Your task to perform on an android device: Open Youtube and go to "Your channel" Image 0: 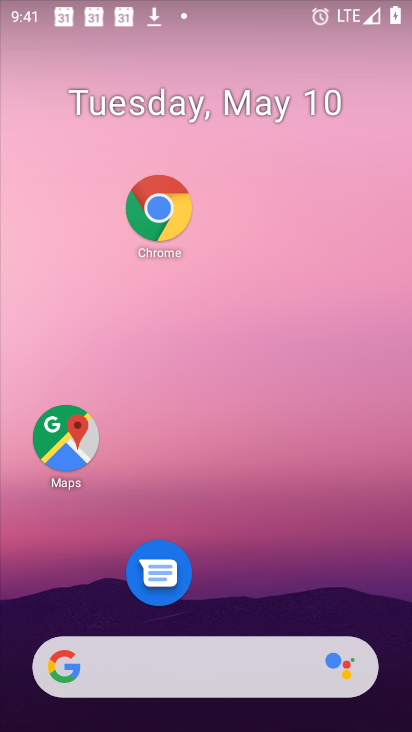
Step 0: drag from (324, 674) to (393, 251)
Your task to perform on an android device: Open Youtube and go to "Your channel" Image 1: 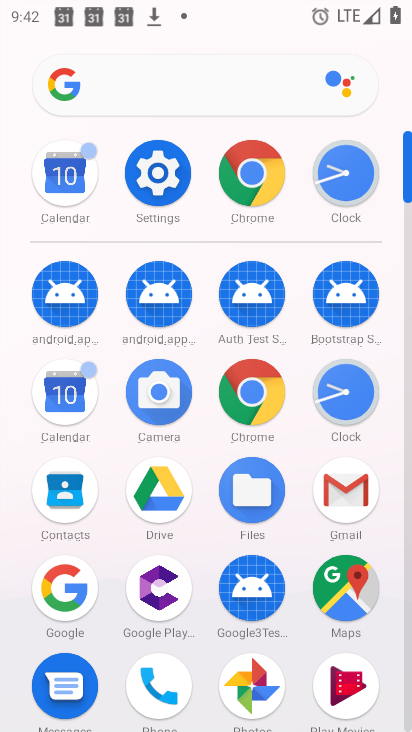
Step 1: drag from (293, 632) to (346, 459)
Your task to perform on an android device: Open Youtube and go to "Your channel" Image 2: 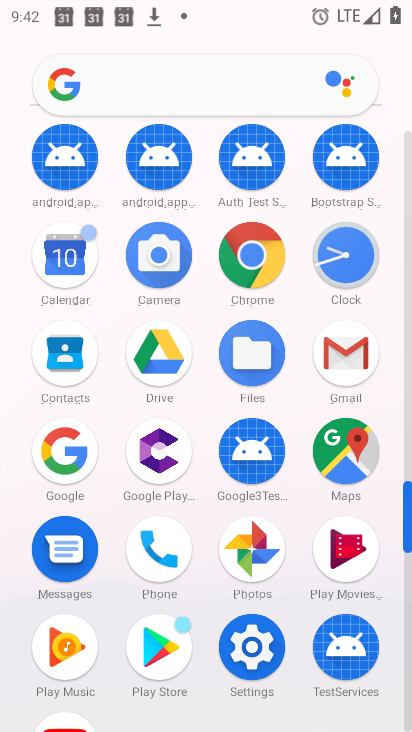
Step 2: drag from (214, 594) to (217, 498)
Your task to perform on an android device: Open Youtube and go to "Your channel" Image 3: 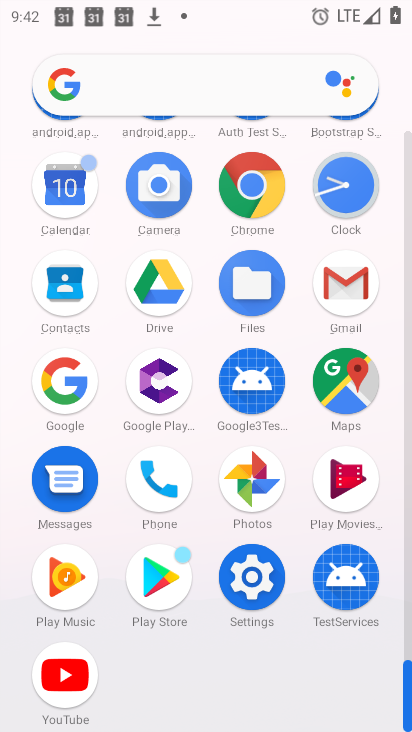
Step 3: click (71, 669)
Your task to perform on an android device: Open Youtube and go to "Your channel" Image 4: 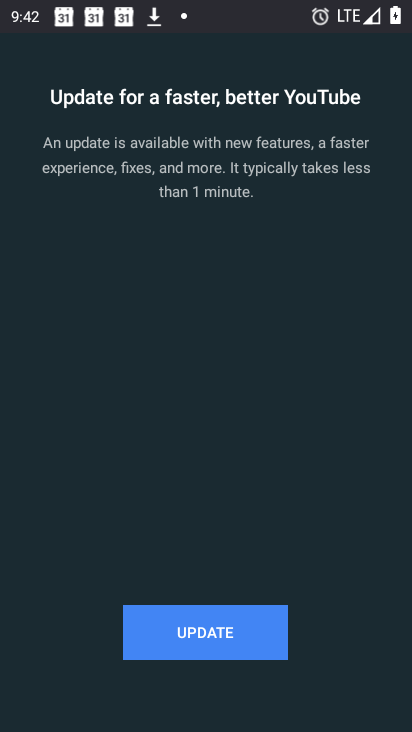
Step 4: click (183, 644)
Your task to perform on an android device: Open Youtube and go to "Your channel" Image 5: 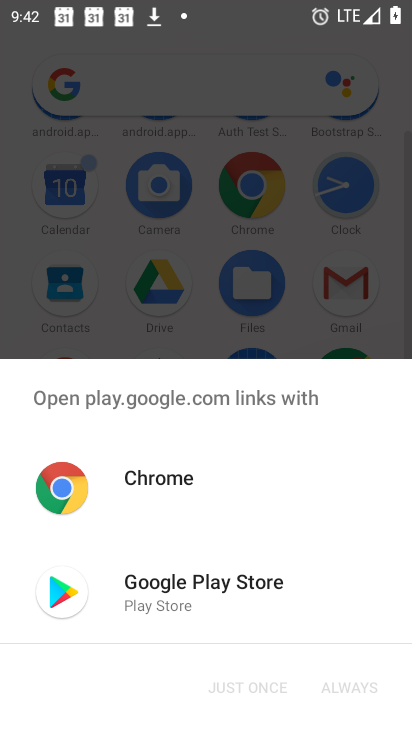
Step 5: click (178, 577)
Your task to perform on an android device: Open Youtube and go to "Your channel" Image 6: 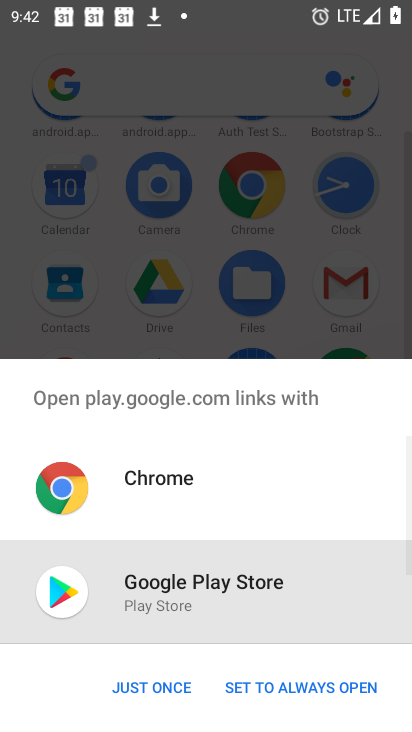
Step 6: click (188, 687)
Your task to perform on an android device: Open Youtube and go to "Your channel" Image 7: 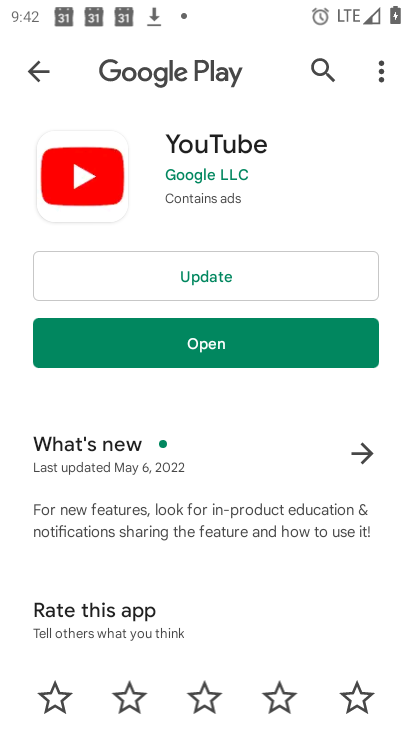
Step 7: click (202, 281)
Your task to perform on an android device: Open Youtube and go to "Your channel" Image 8: 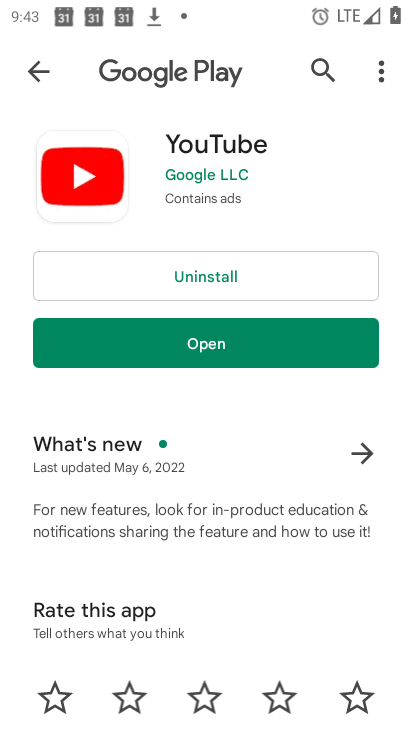
Step 8: click (201, 335)
Your task to perform on an android device: Open Youtube and go to "Your channel" Image 9: 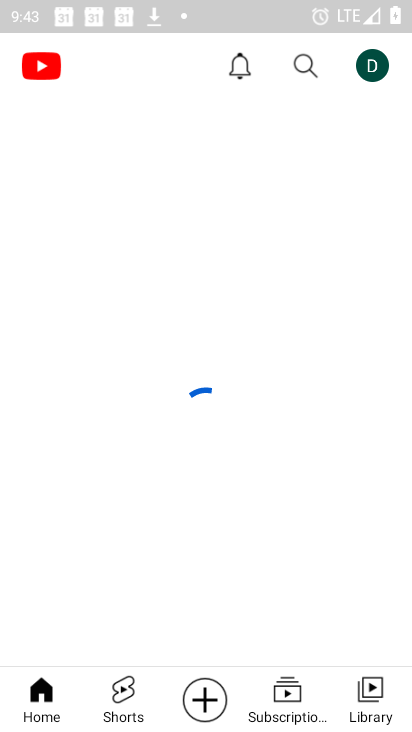
Step 9: click (385, 72)
Your task to perform on an android device: Open Youtube and go to "Your channel" Image 10: 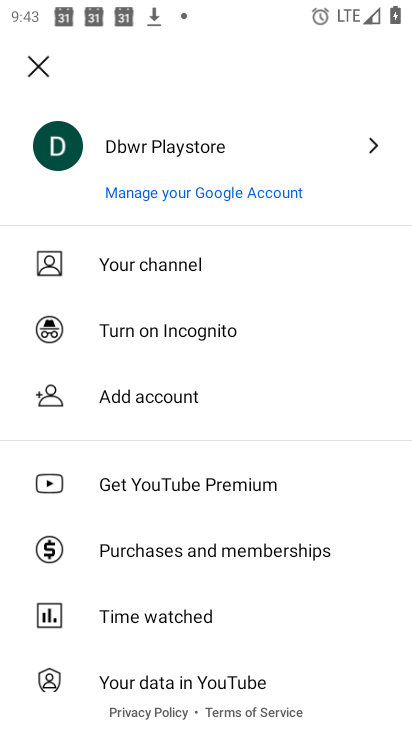
Step 10: click (153, 258)
Your task to perform on an android device: Open Youtube and go to "Your channel" Image 11: 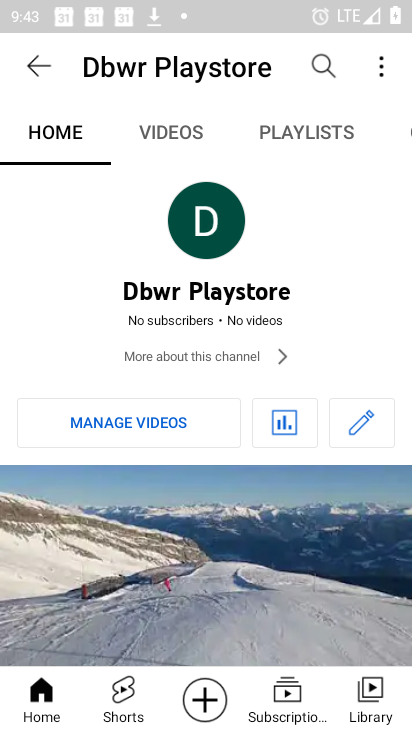
Step 11: task complete